Your task to perform on an android device: show emergency info Image 0: 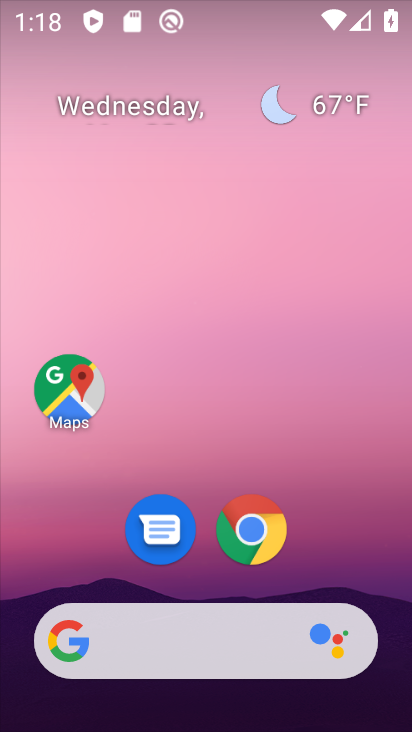
Step 0: drag from (354, 537) to (295, 213)
Your task to perform on an android device: show emergency info Image 1: 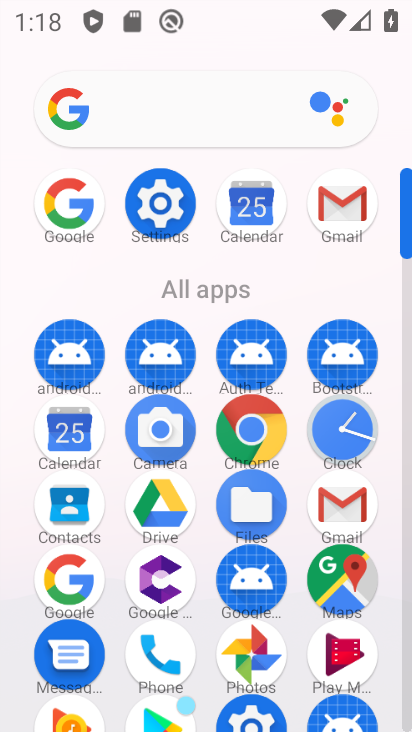
Step 1: click (160, 201)
Your task to perform on an android device: show emergency info Image 2: 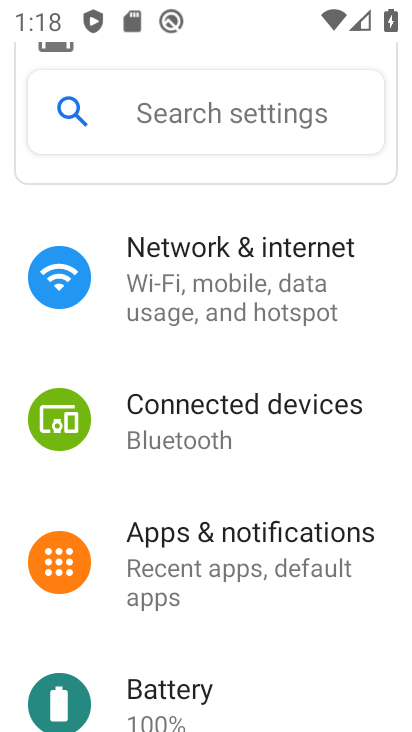
Step 2: drag from (201, 499) to (235, 338)
Your task to perform on an android device: show emergency info Image 3: 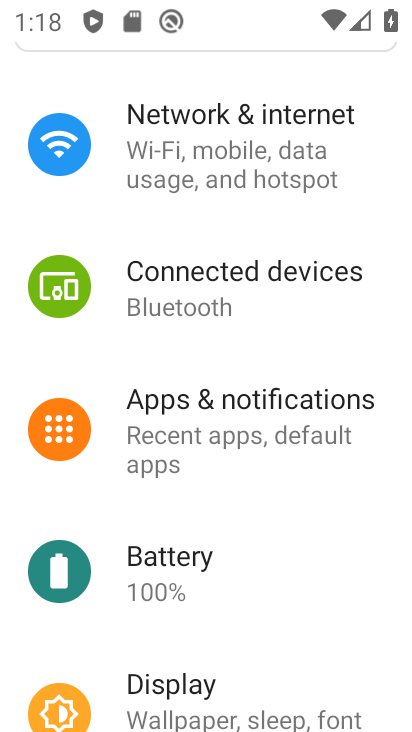
Step 3: drag from (201, 502) to (259, 359)
Your task to perform on an android device: show emergency info Image 4: 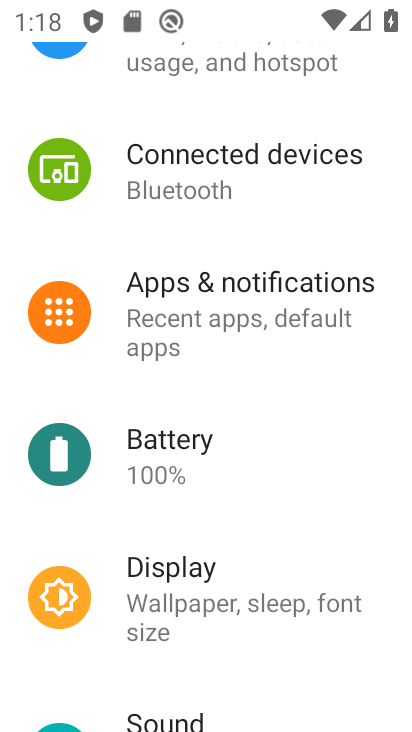
Step 4: drag from (192, 534) to (248, 433)
Your task to perform on an android device: show emergency info Image 5: 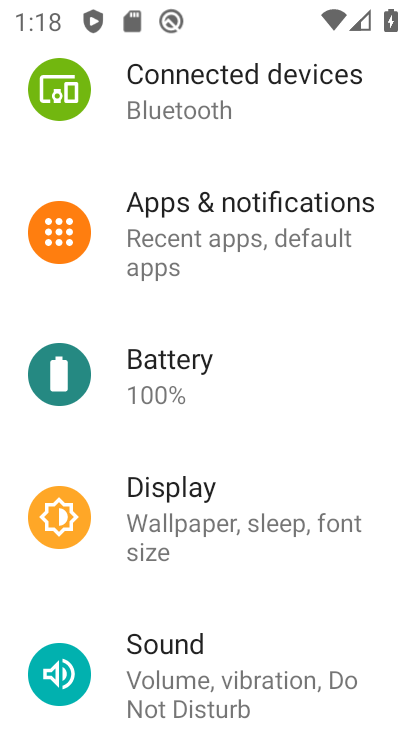
Step 5: drag from (185, 584) to (223, 481)
Your task to perform on an android device: show emergency info Image 6: 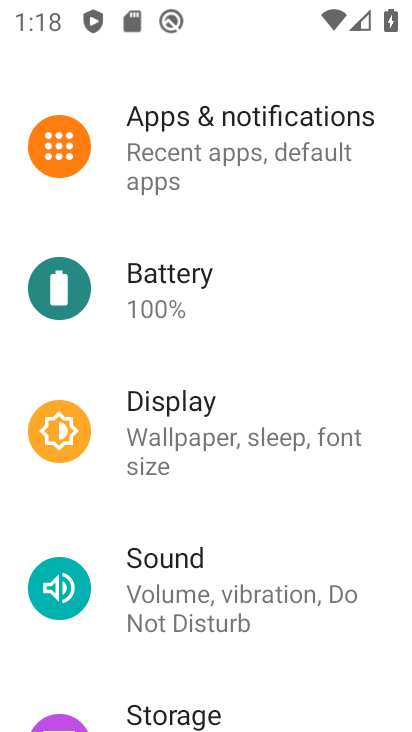
Step 6: drag from (188, 646) to (253, 525)
Your task to perform on an android device: show emergency info Image 7: 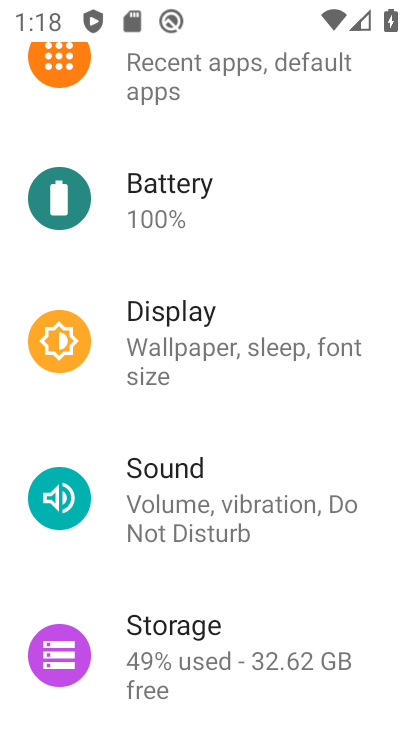
Step 7: drag from (194, 685) to (251, 522)
Your task to perform on an android device: show emergency info Image 8: 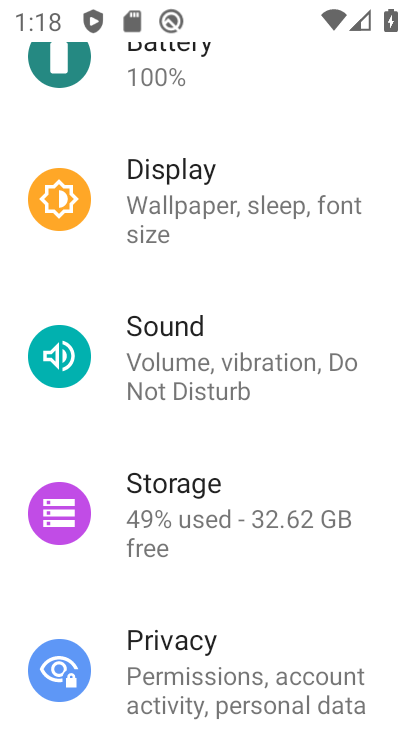
Step 8: drag from (220, 596) to (278, 421)
Your task to perform on an android device: show emergency info Image 9: 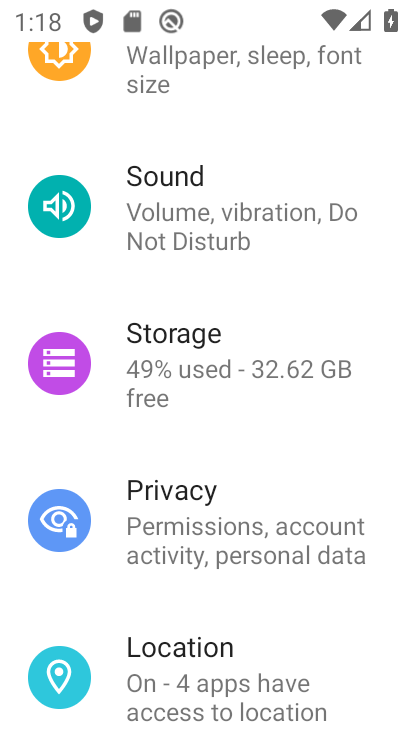
Step 9: drag from (187, 596) to (210, 478)
Your task to perform on an android device: show emergency info Image 10: 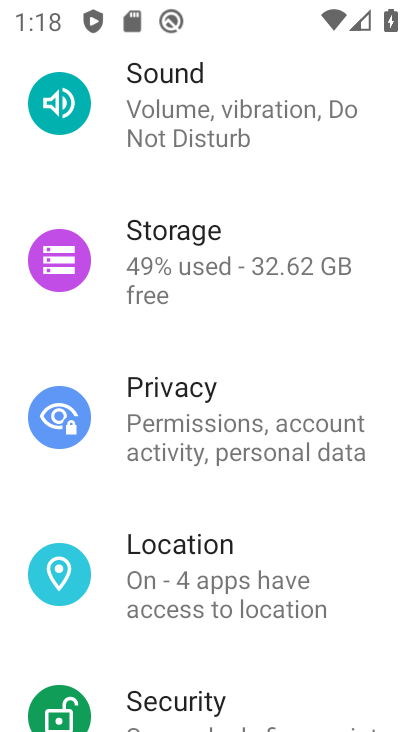
Step 10: drag from (172, 652) to (243, 467)
Your task to perform on an android device: show emergency info Image 11: 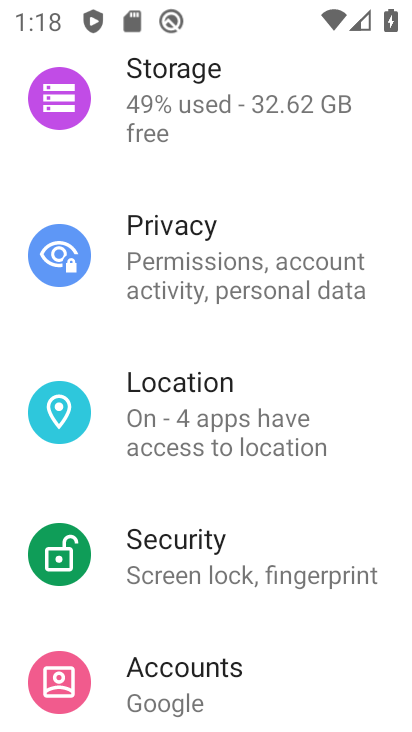
Step 11: drag from (166, 623) to (221, 475)
Your task to perform on an android device: show emergency info Image 12: 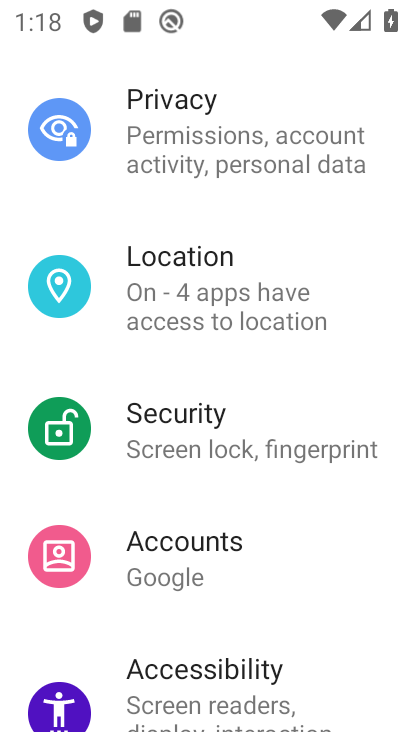
Step 12: drag from (154, 622) to (217, 485)
Your task to perform on an android device: show emergency info Image 13: 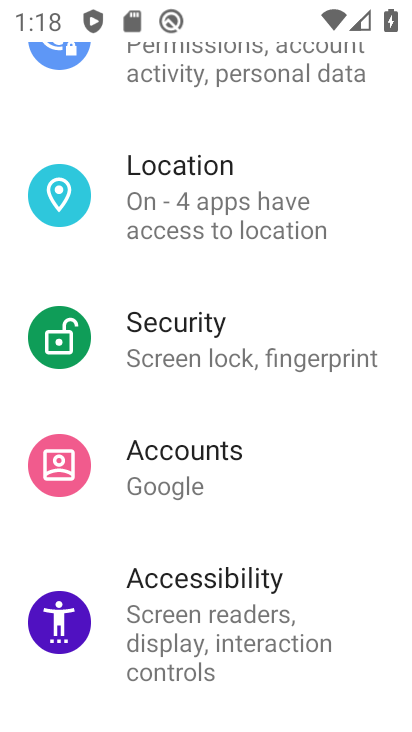
Step 13: drag from (129, 543) to (171, 402)
Your task to perform on an android device: show emergency info Image 14: 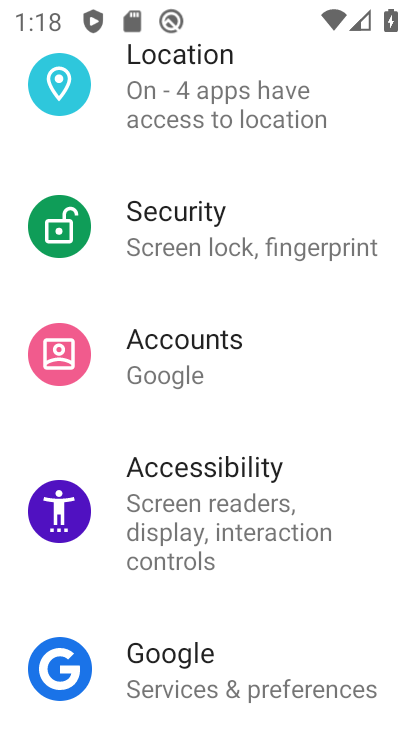
Step 14: drag from (98, 594) to (155, 420)
Your task to perform on an android device: show emergency info Image 15: 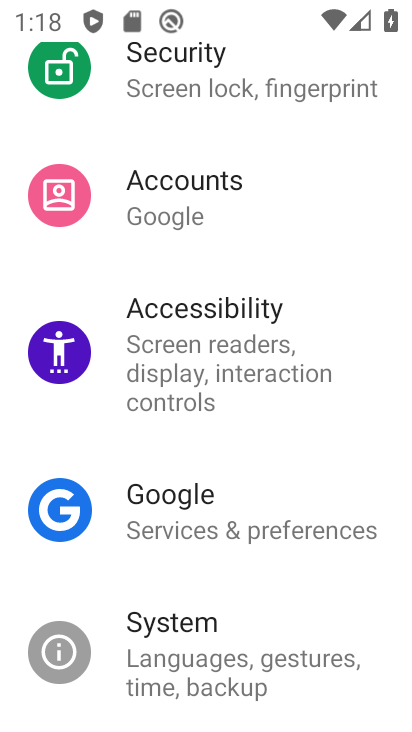
Step 15: drag from (129, 592) to (182, 460)
Your task to perform on an android device: show emergency info Image 16: 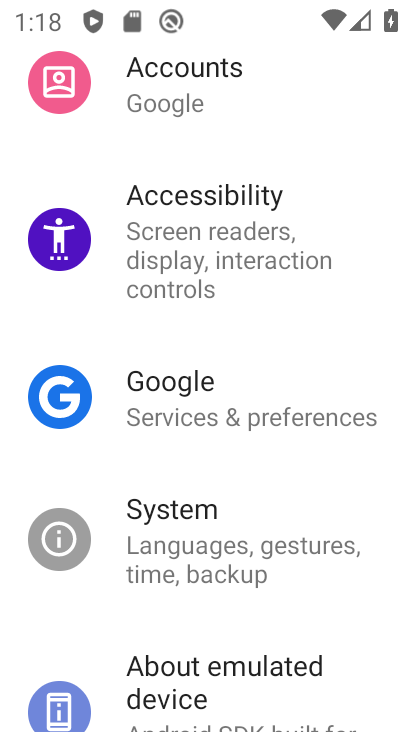
Step 16: drag from (105, 593) to (120, 481)
Your task to perform on an android device: show emergency info Image 17: 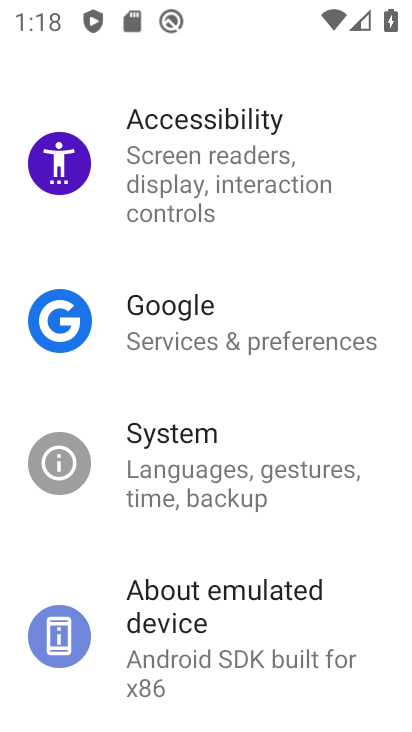
Step 17: click (173, 598)
Your task to perform on an android device: show emergency info Image 18: 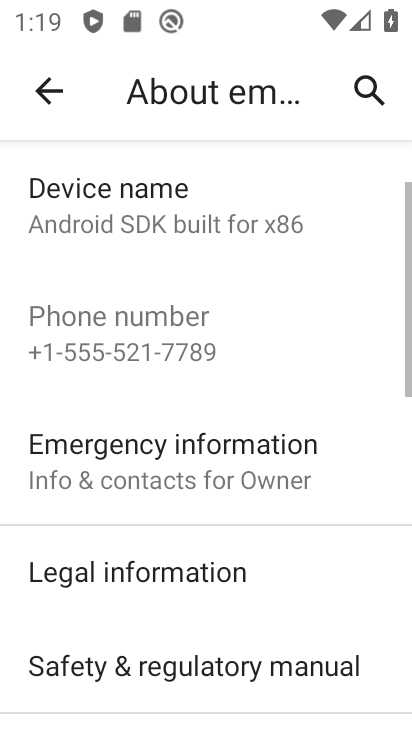
Step 18: click (143, 455)
Your task to perform on an android device: show emergency info Image 19: 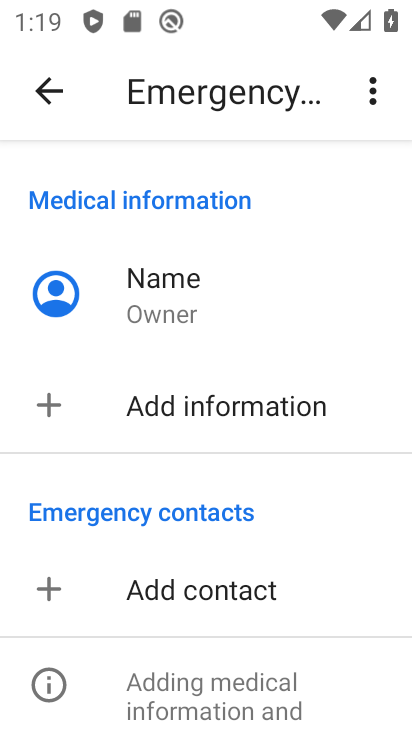
Step 19: task complete